Your task to perform on an android device: Open display settings Image 0: 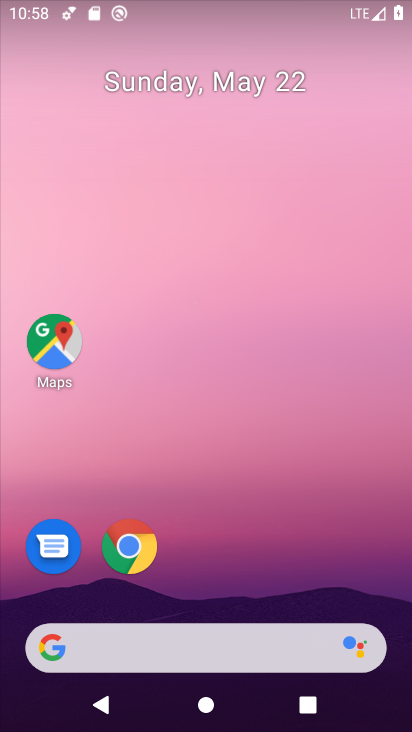
Step 0: drag from (230, 693) to (259, 70)
Your task to perform on an android device: Open display settings Image 1: 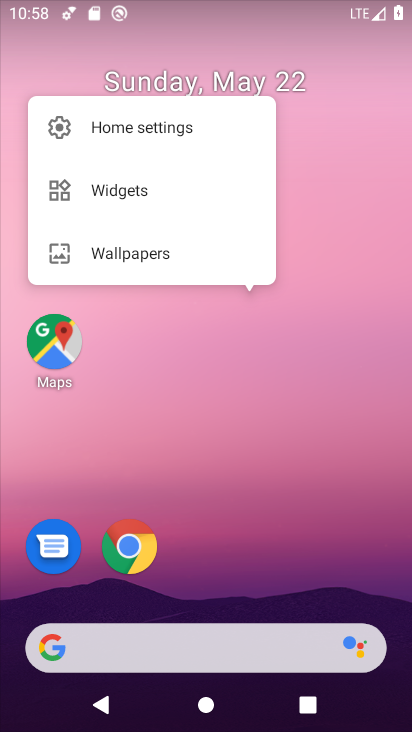
Step 1: click (346, 369)
Your task to perform on an android device: Open display settings Image 2: 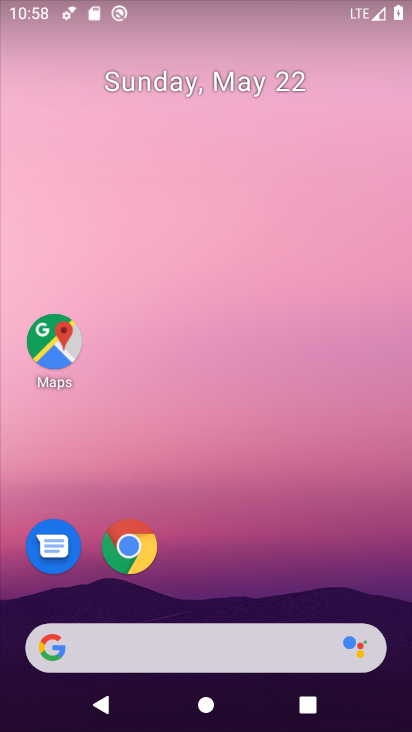
Step 2: drag from (239, 700) to (335, 126)
Your task to perform on an android device: Open display settings Image 3: 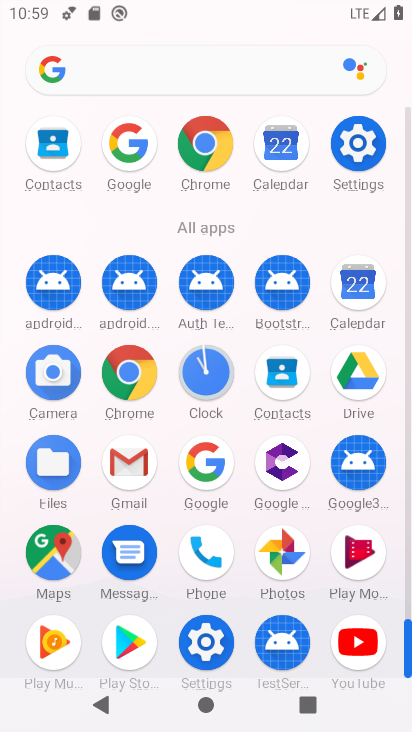
Step 3: click (371, 188)
Your task to perform on an android device: Open display settings Image 4: 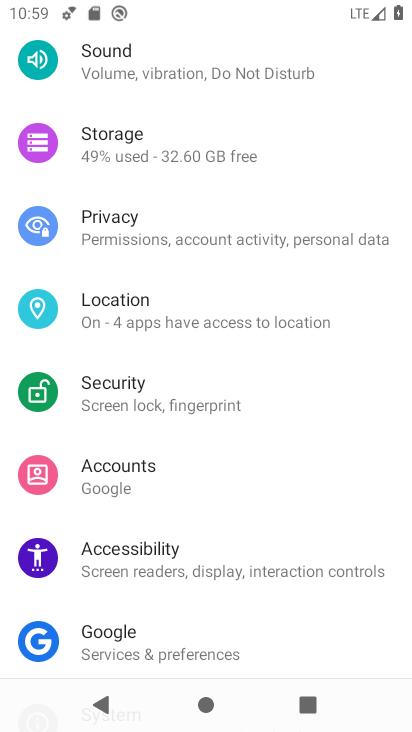
Step 4: click (367, 146)
Your task to perform on an android device: Open display settings Image 5: 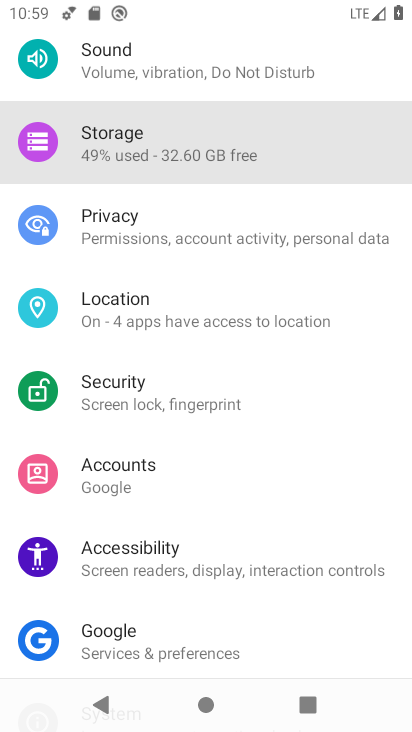
Step 5: click (365, 170)
Your task to perform on an android device: Open display settings Image 6: 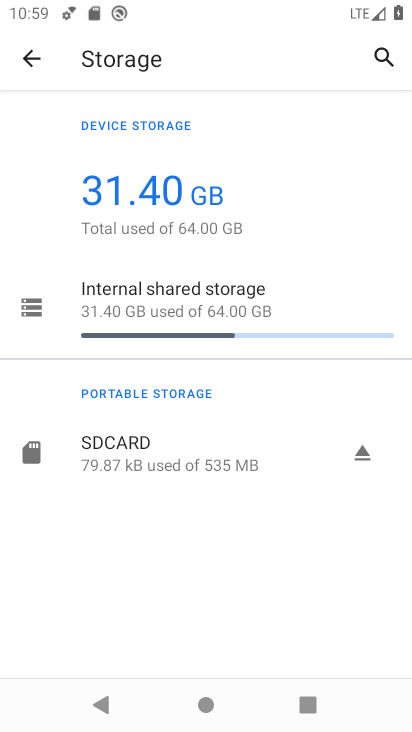
Step 6: click (26, 61)
Your task to perform on an android device: Open display settings Image 7: 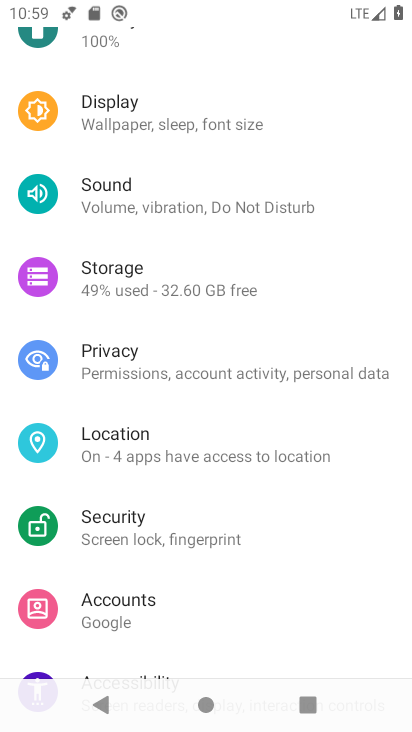
Step 7: click (232, 122)
Your task to perform on an android device: Open display settings Image 8: 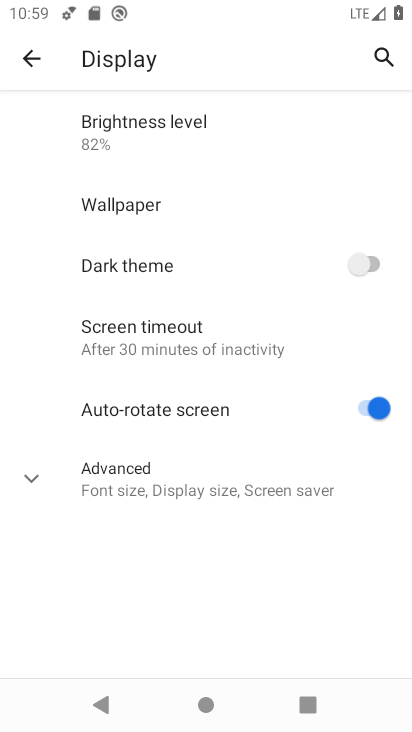
Step 8: click (205, 494)
Your task to perform on an android device: Open display settings Image 9: 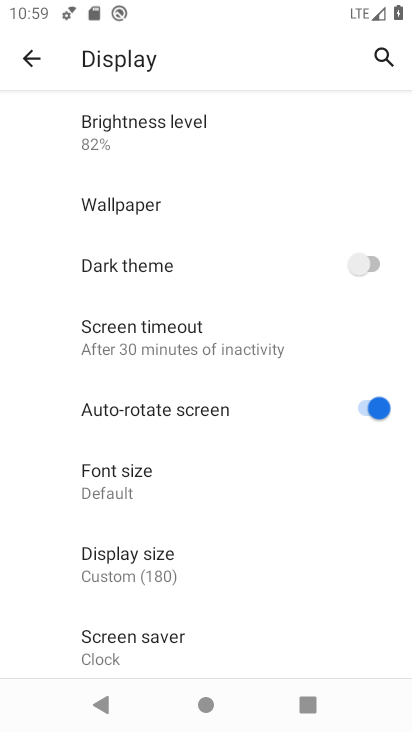
Step 9: task complete